Your task to perform on an android device: turn off improve location accuracy Image 0: 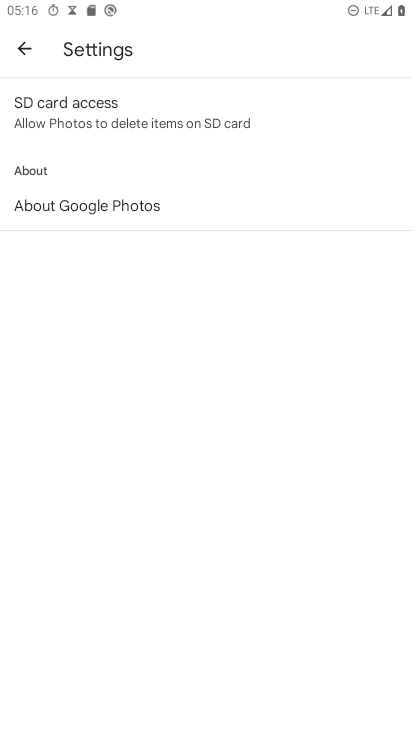
Step 0: press home button
Your task to perform on an android device: turn off improve location accuracy Image 1: 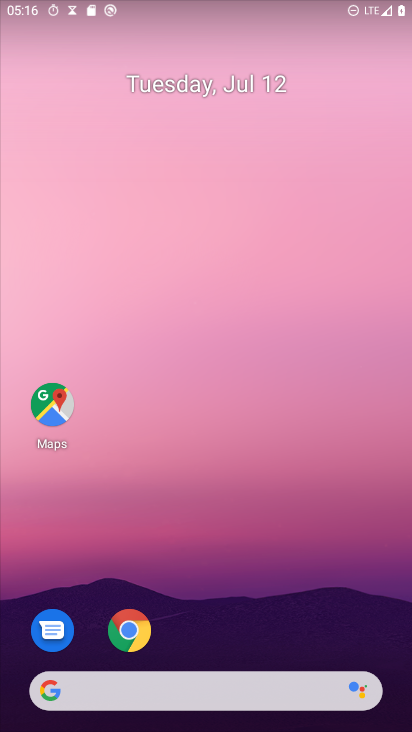
Step 1: drag from (256, 691) to (271, 35)
Your task to perform on an android device: turn off improve location accuracy Image 2: 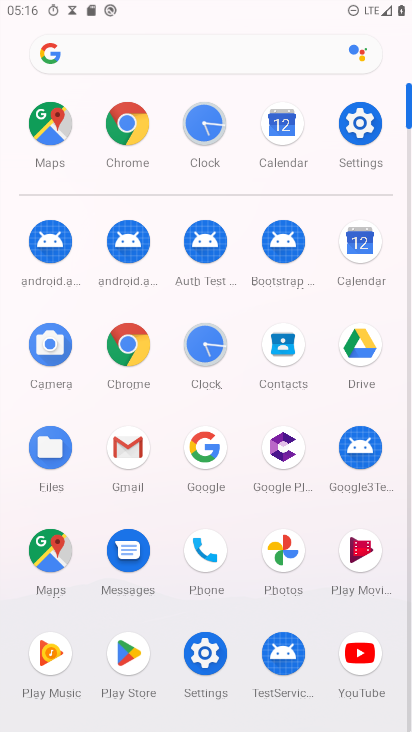
Step 2: click (357, 131)
Your task to perform on an android device: turn off improve location accuracy Image 3: 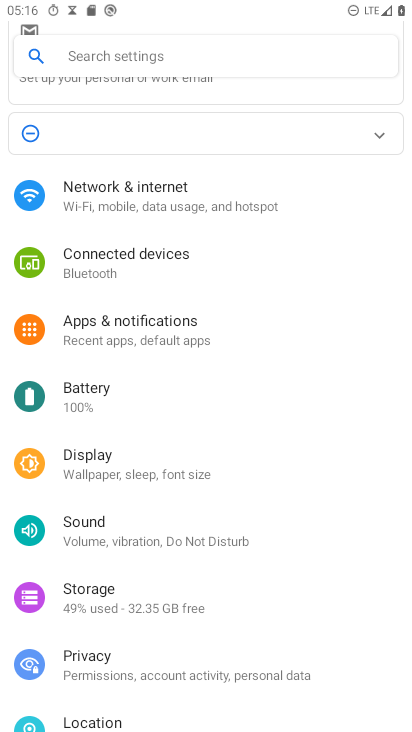
Step 3: drag from (134, 639) to (145, 329)
Your task to perform on an android device: turn off improve location accuracy Image 4: 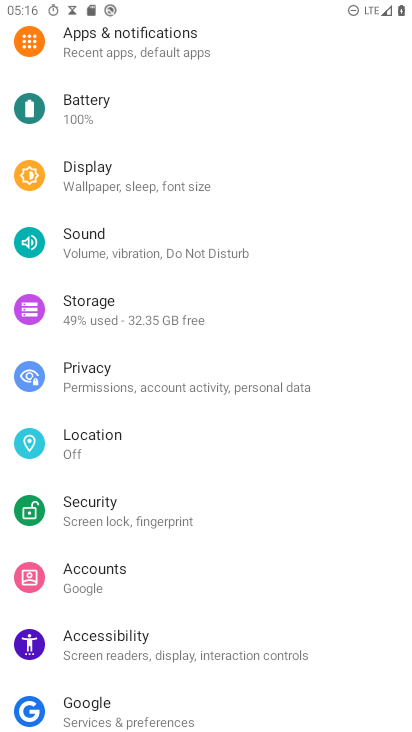
Step 4: click (111, 430)
Your task to perform on an android device: turn off improve location accuracy Image 5: 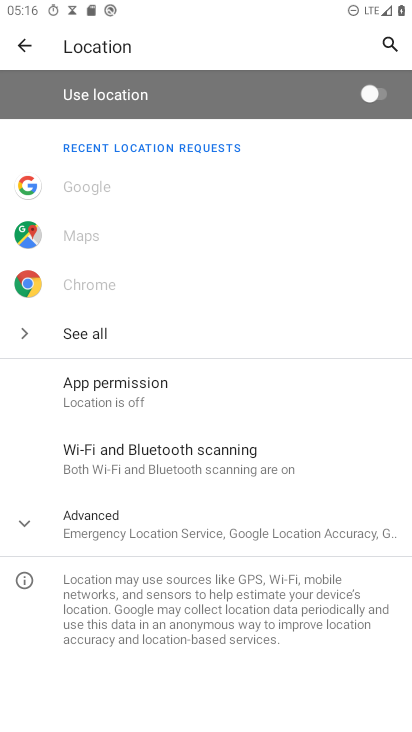
Step 5: click (209, 532)
Your task to perform on an android device: turn off improve location accuracy Image 6: 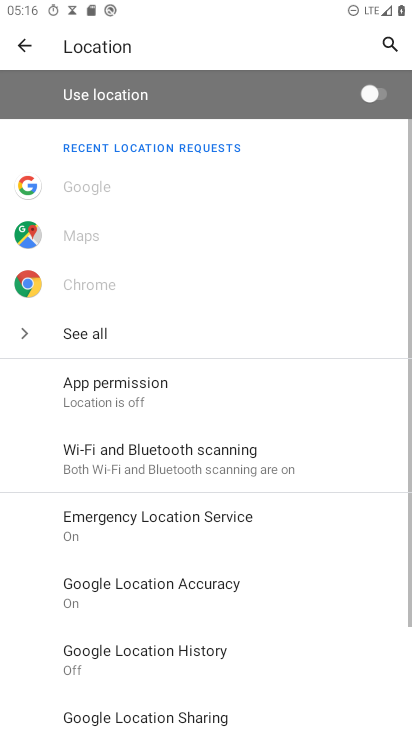
Step 6: drag from (218, 668) to (243, 394)
Your task to perform on an android device: turn off improve location accuracy Image 7: 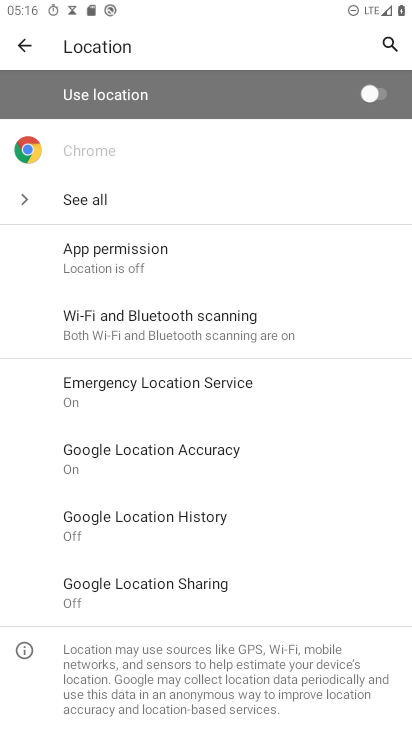
Step 7: click (146, 457)
Your task to perform on an android device: turn off improve location accuracy Image 8: 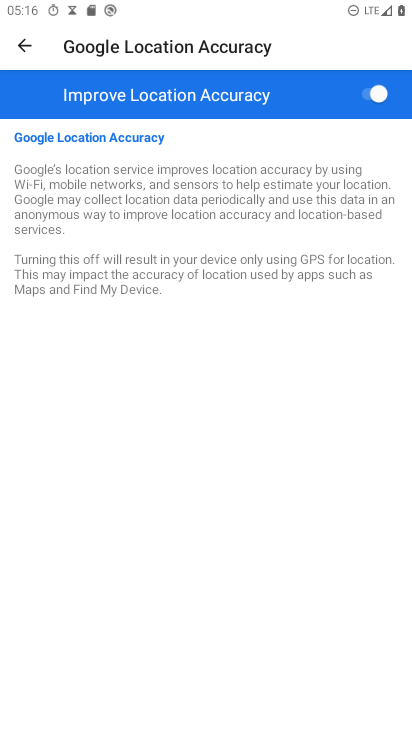
Step 8: click (375, 87)
Your task to perform on an android device: turn off improve location accuracy Image 9: 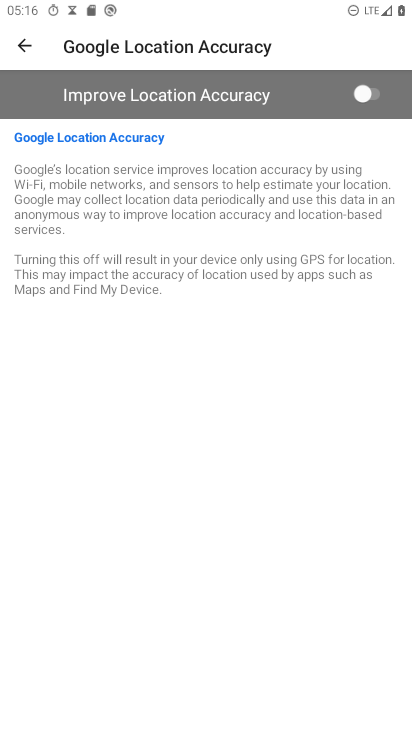
Step 9: task complete